Your task to perform on an android device: toggle priority inbox in the gmail app Image 0: 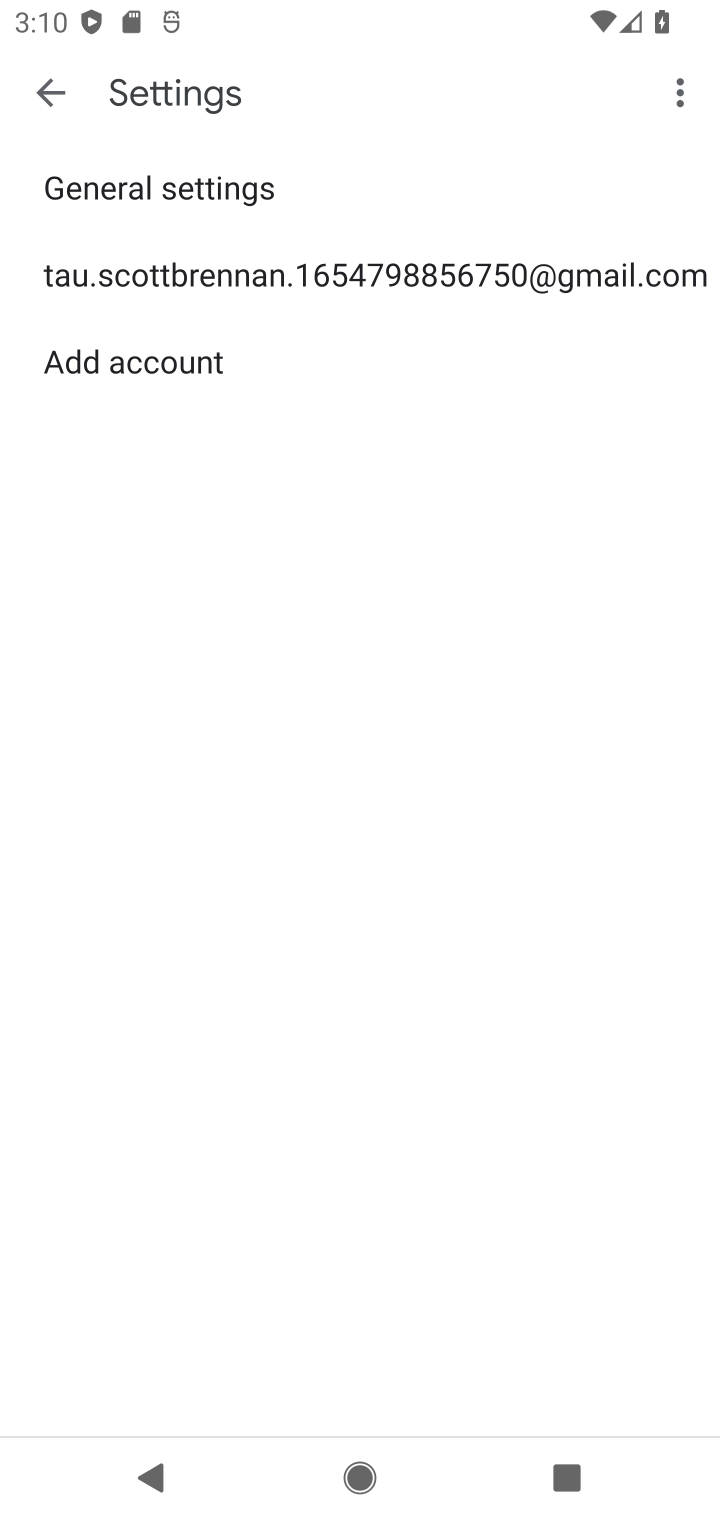
Step 0: press home button
Your task to perform on an android device: toggle priority inbox in the gmail app Image 1: 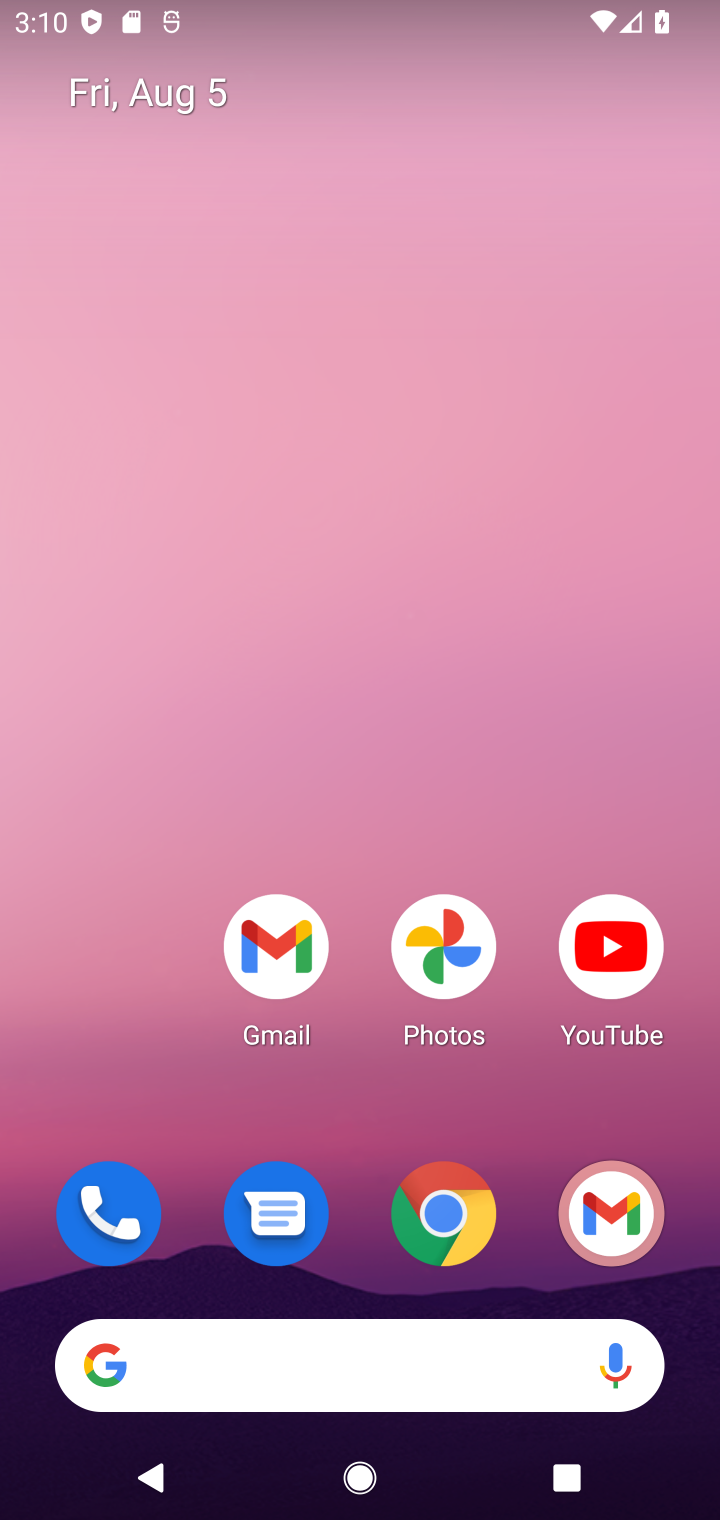
Step 1: click (616, 1209)
Your task to perform on an android device: toggle priority inbox in the gmail app Image 2: 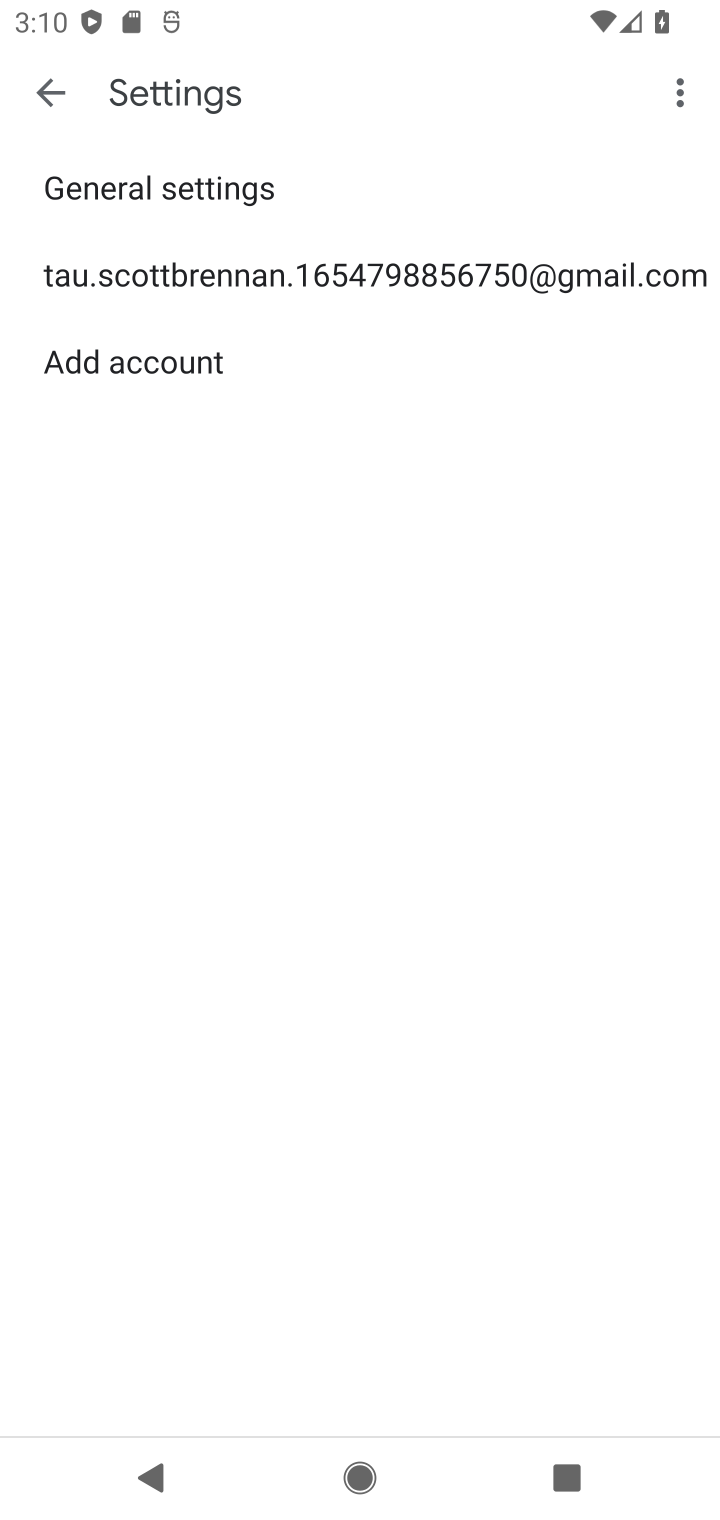
Step 2: click (457, 273)
Your task to perform on an android device: toggle priority inbox in the gmail app Image 3: 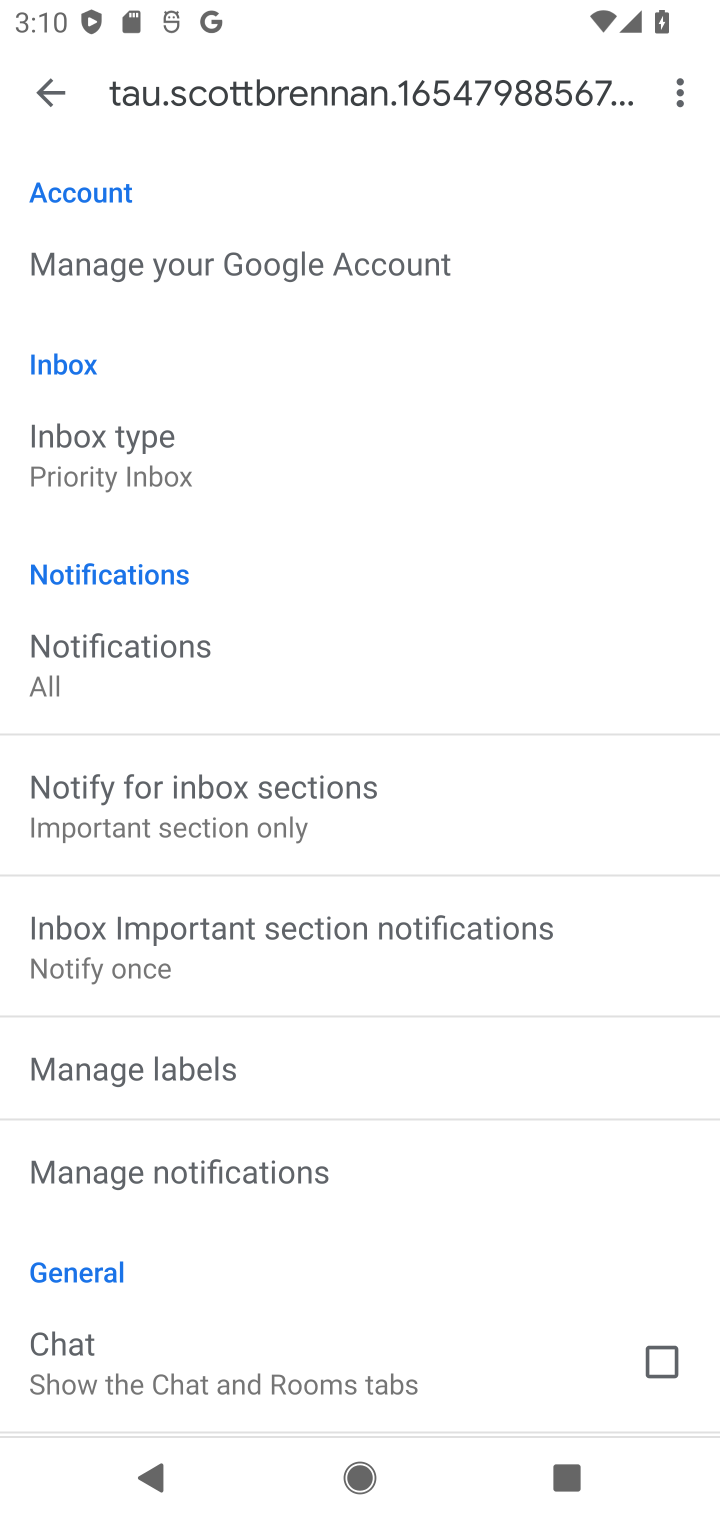
Step 3: click (170, 457)
Your task to perform on an android device: toggle priority inbox in the gmail app Image 4: 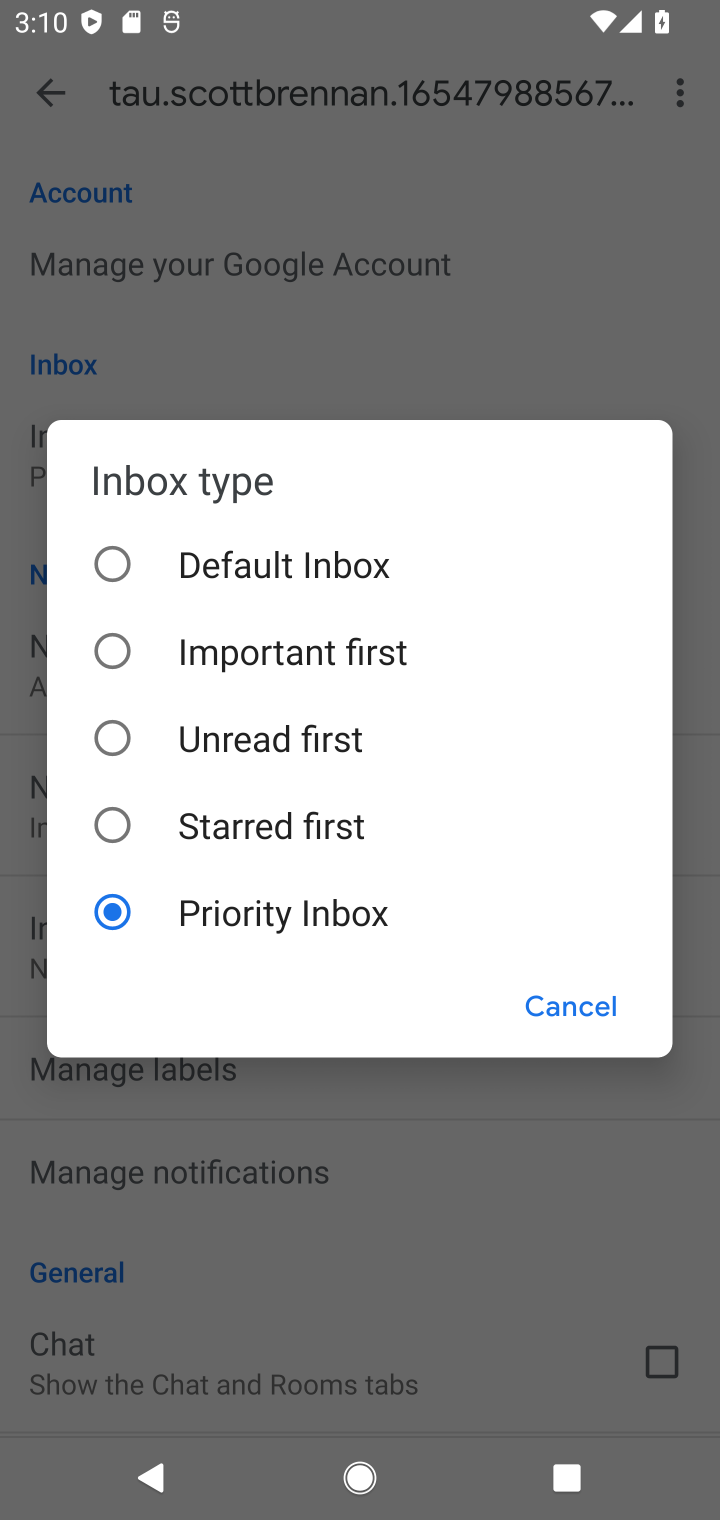
Step 4: click (98, 553)
Your task to perform on an android device: toggle priority inbox in the gmail app Image 5: 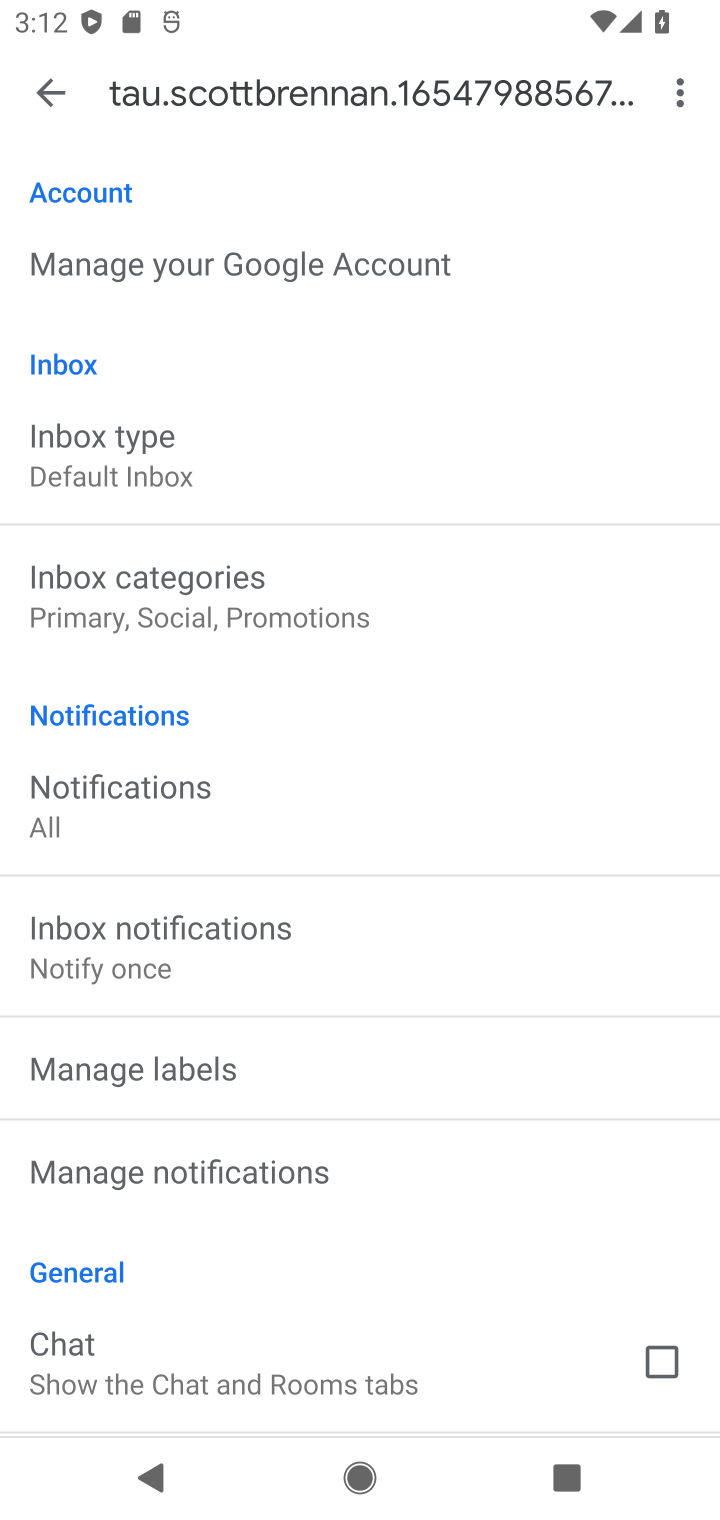
Step 5: task complete